Your task to perform on an android device: create a new album in the google photos Image 0: 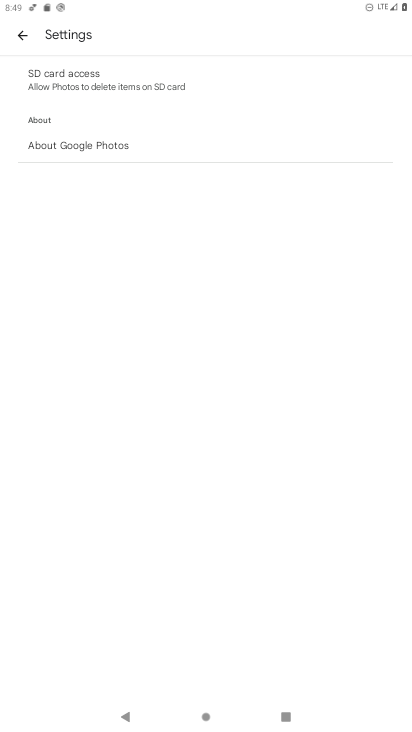
Step 0: press home button
Your task to perform on an android device: create a new album in the google photos Image 1: 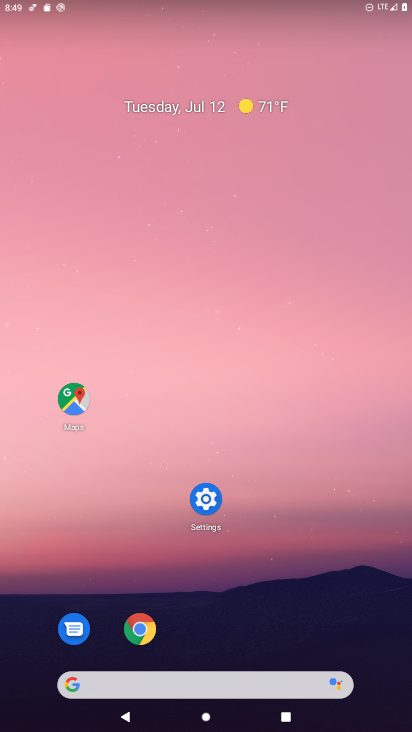
Step 1: drag from (392, 712) to (391, 203)
Your task to perform on an android device: create a new album in the google photos Image 2: 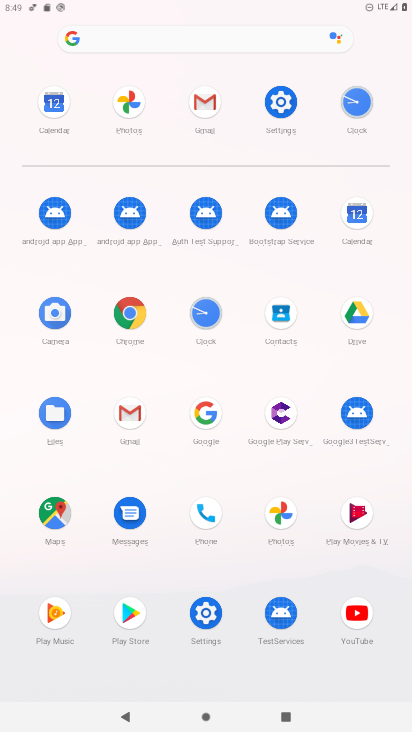
Step 2: click (274, 522)
Your task to perform on an android device: create a new album in the google photos Image 3: 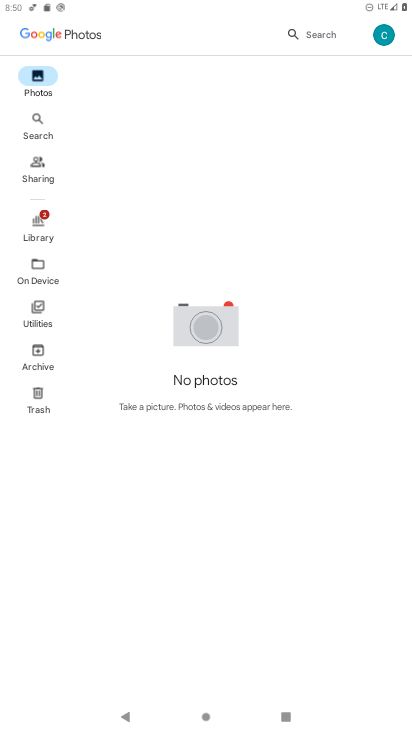
Step 3: task complete